Your task to perform on an android device: find photos in the google photos app Image 0: 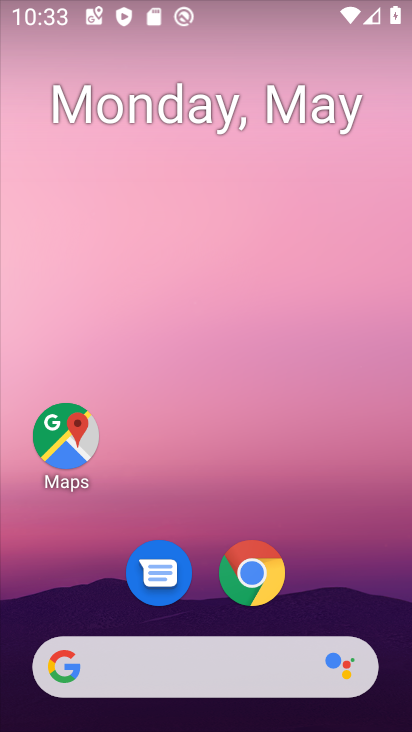
Step 0: drag from (198, 614) to (298, 72)
Your task to perform on an android device: find photos in the google photos app Image 1: 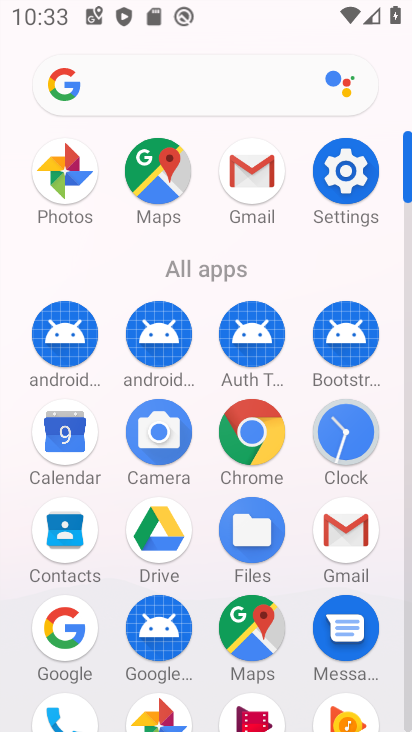
Step 1: drag from (161, 636) to (277, 190)
Your task to perform on an android device: find photos in the google photos app Image 2: 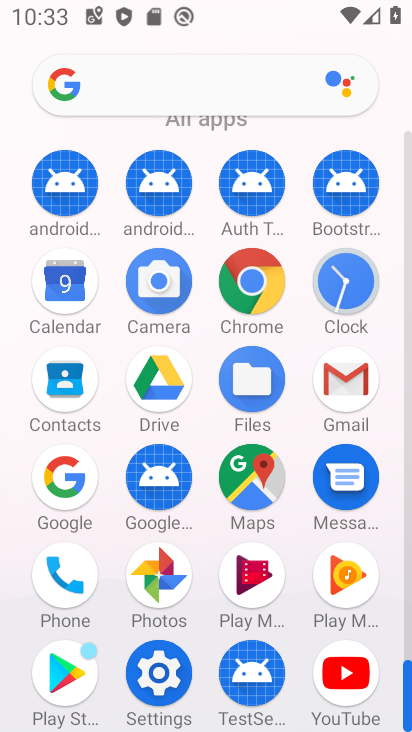
Step 2: click (149, 552)
Your task to perform on an android device: find photos in the google photos app Image 3: 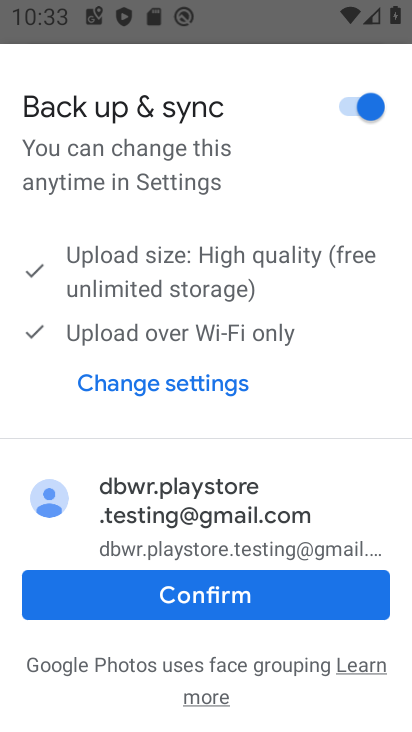
Step 3: click (221, 599)
Your task to perform on an android device: find photos in the google photos app Image 4: 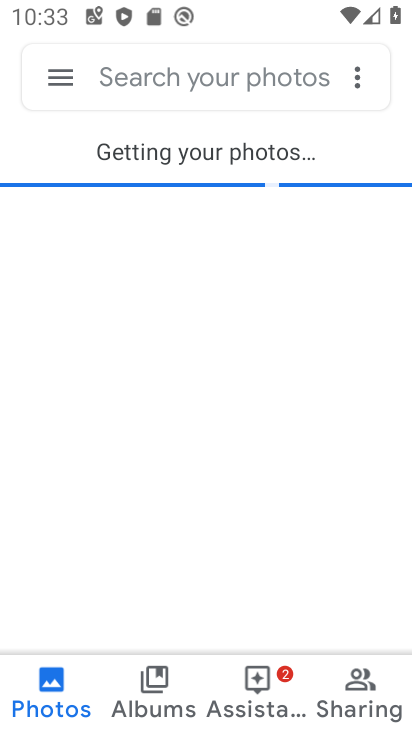
Step 4: click (68, 699)
Your task to perform on an android device: find photos in the google photos app Image 5: 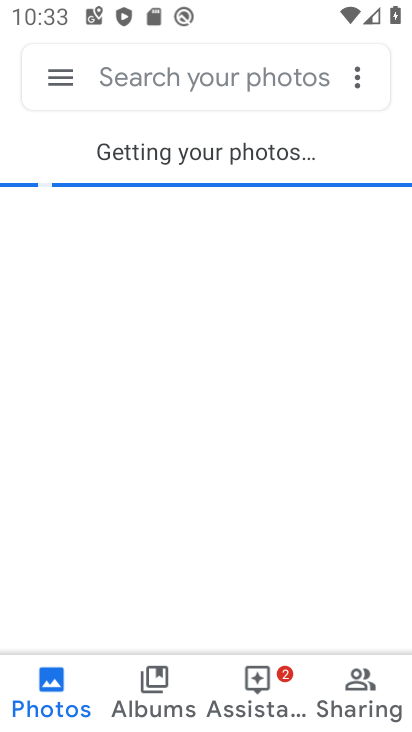
Step 5: task complete